Your task to perform on an android device: Open calendar and show me the second week of next month Image 0: 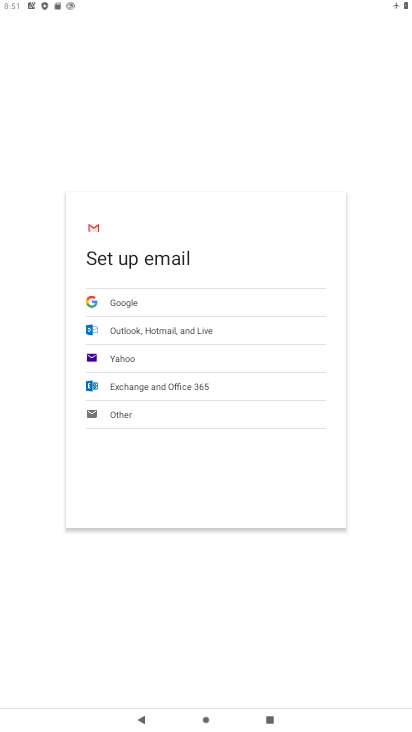
Step 0: press home button
Your task to perform on an android device: Open calendar and show me the second week of next month Image 1: 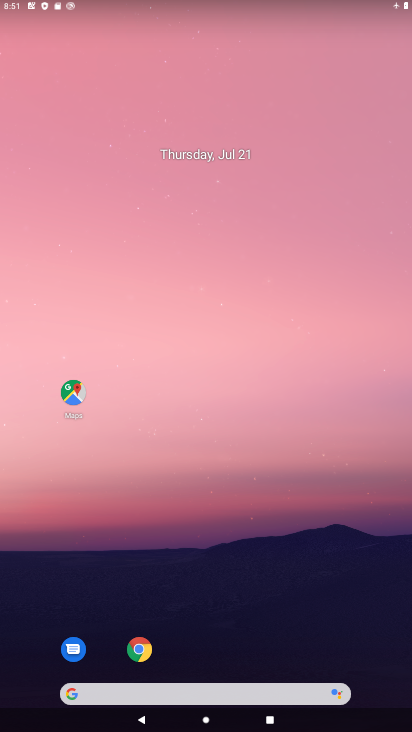
Step 1: drag from (219, 645) to (188, 28)
Your task to perform on an android device: Open calendar and show me the second week of next month Image 2: 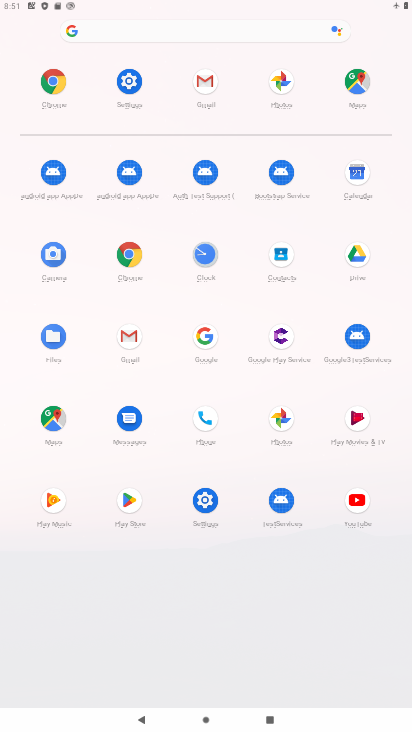
Step 2: click (362, 185)
Your task to perform on an android device: Open calendar and show me the second week of next month Image 3: 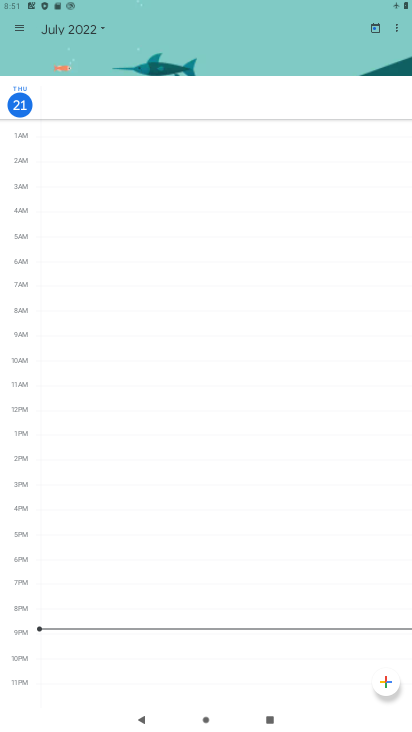
Step 3: click (25, 28)
Your task to perform on an android device: Open calendar and show me the second week of next month Image 4: 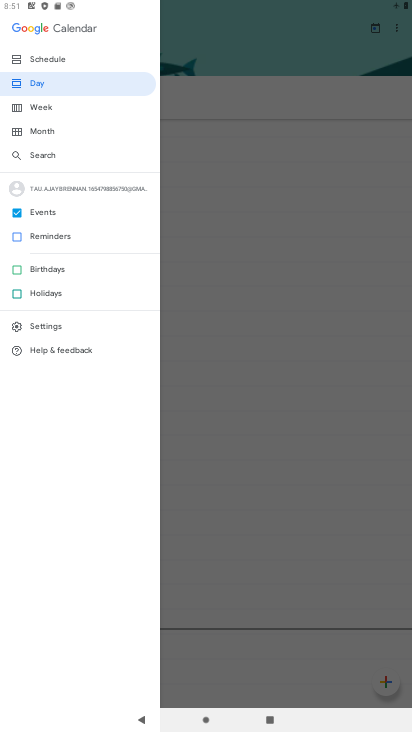
Step 4: click (46, 115)
Your task to perform on an android device: Open calendar and show me the second week of next month Image 5: 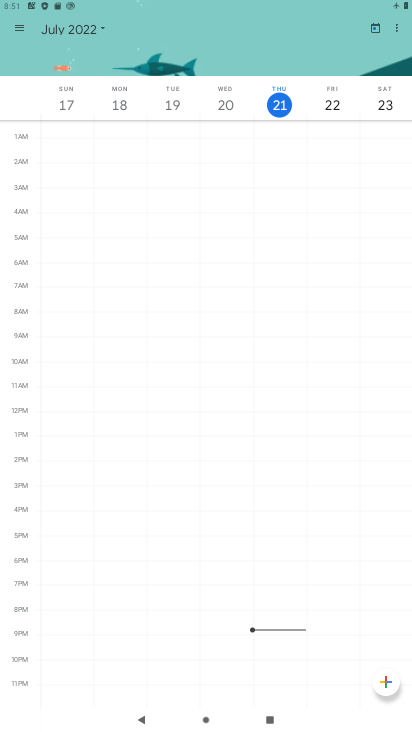
Step 5: click (82, 29)
Your task to perform on an android device: Open calendar and show me the second week of next month Image 6: 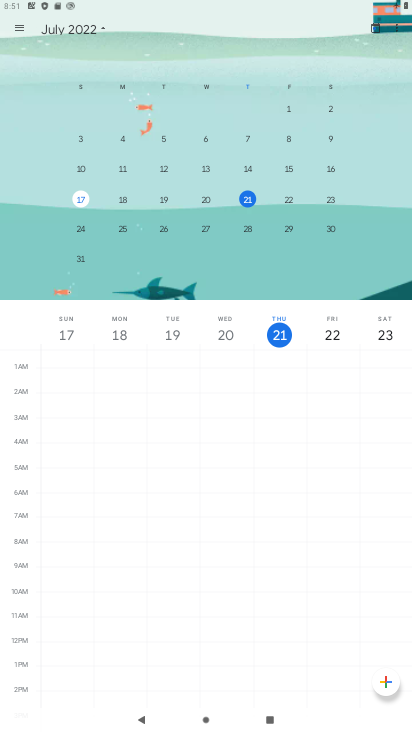
Step 6: drag from (291, 194) to (10, 190)
Your task to perform on an android device: Open calendar and show me the second week of next month Image 7: 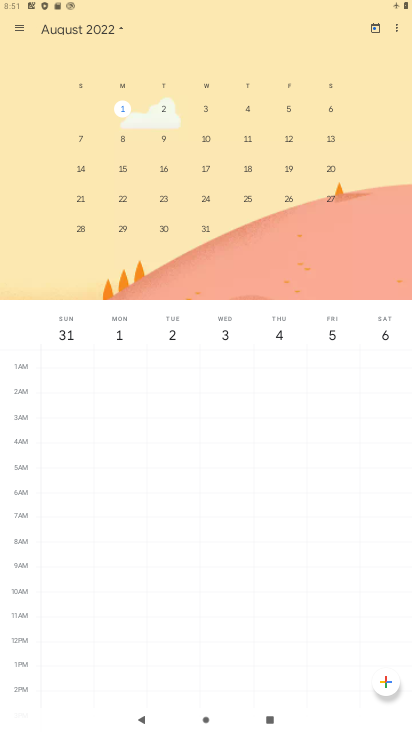
Step 7: click (291, 136)
Your task to perform on an android device: Open calendar and show me the second week of next month Image 8: 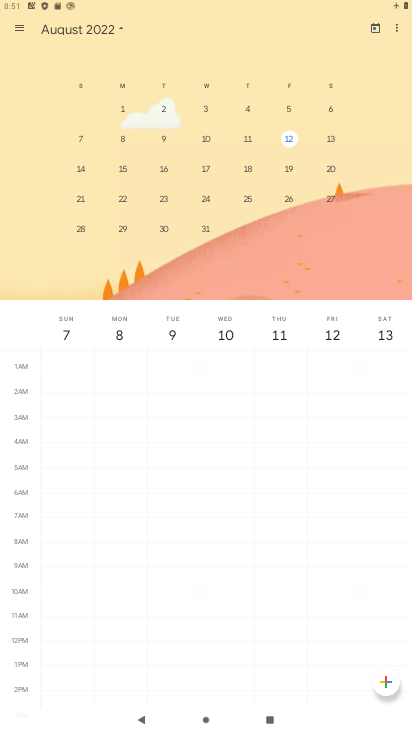
Step 8: task complete